Your task to perform on an android device: change keyboard looks Image 0: 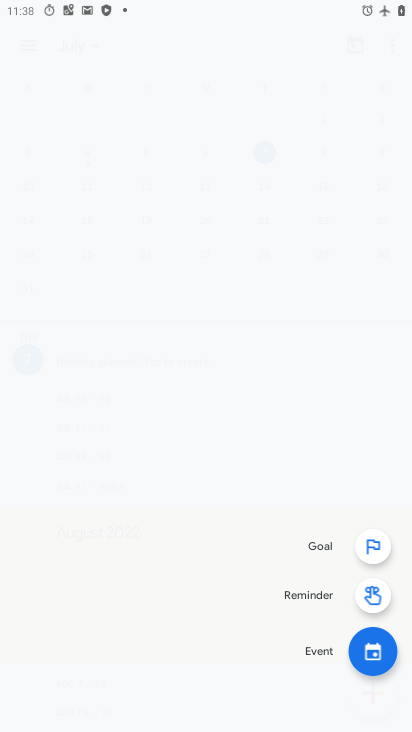
Step 0: press home button
Your task to perform on an android device: change keyboard looks Image 1: 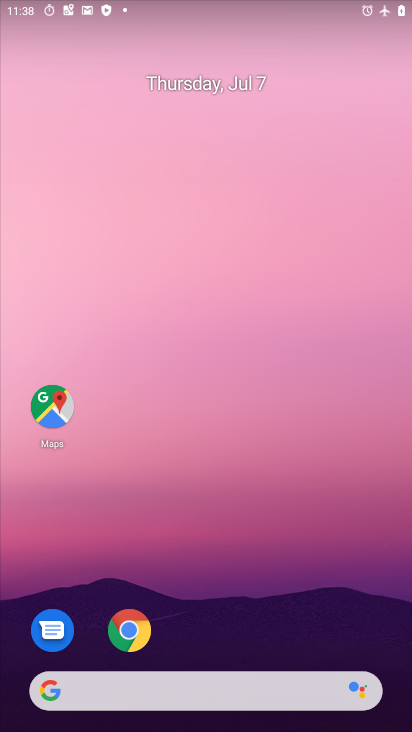
Step 1: drag from (202, 658) to (205, 185)
Your task to perform on an android device: change keyboard looks Image 2: 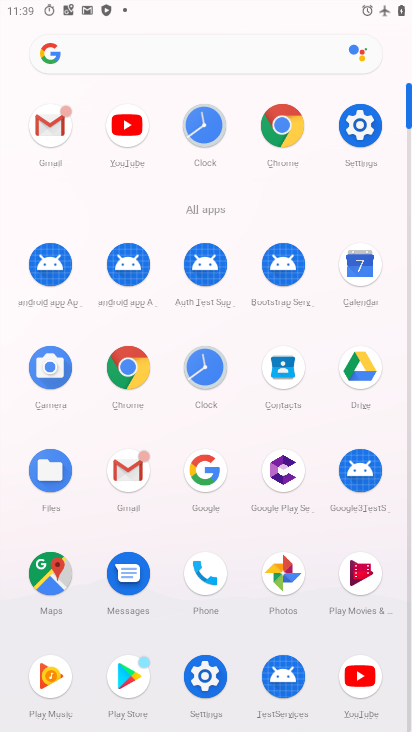
Step 2: click (345, 126)
Your task to perform on an android device: change keyboard looks Image 3: 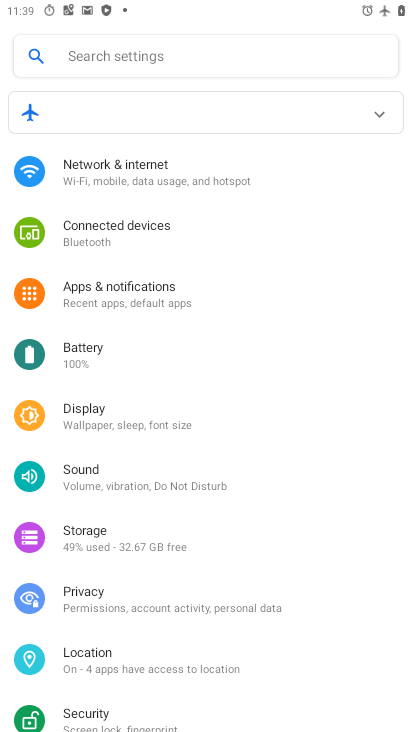
Step 3: drag from (156, 631) to (161, 170)
Your task to perform on an android device: change keyboard looks Image 4: 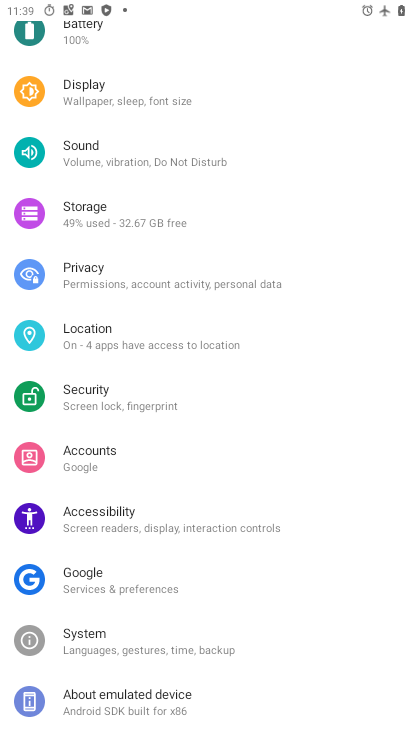
Step 4: click (135, 653)
Your task to perform on an android device: change keyboard looks Image 5: 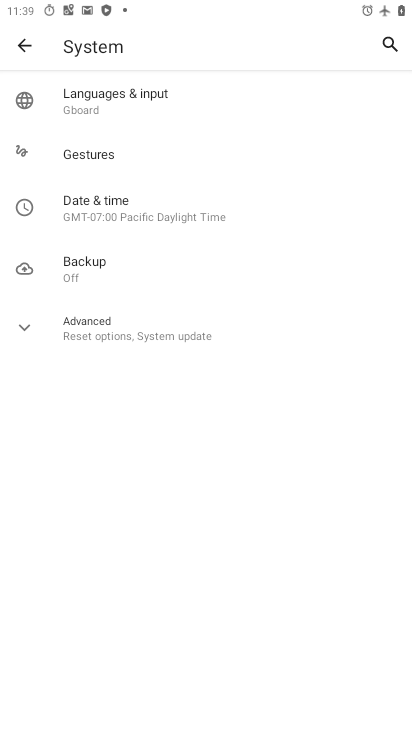
Step 5: click (145, 109)
Your task to perform on an android device: change keyboard looks Image 6: 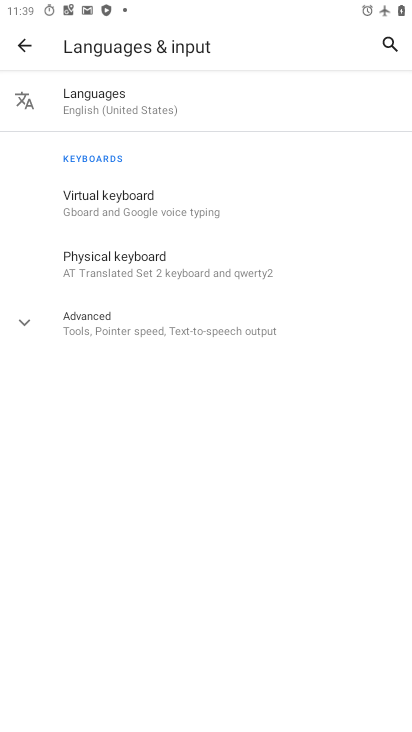
Step 6: click (124, 196)
Your task to perform on an android device: change keyboard looks Image 7: 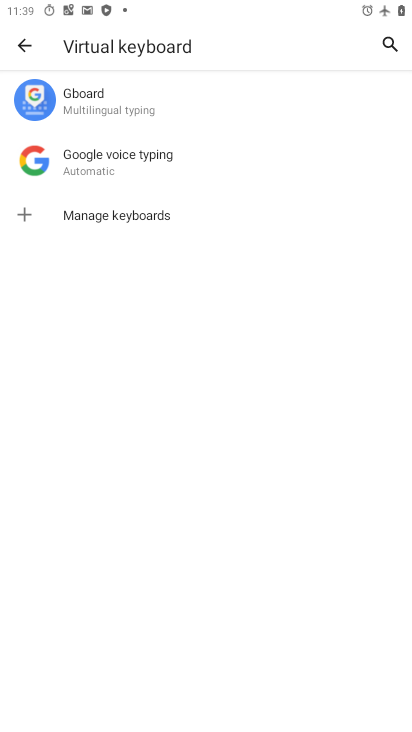
Step 7: click (118, 110)
Your task to perform on an android device: change keyboard looks Image 8: 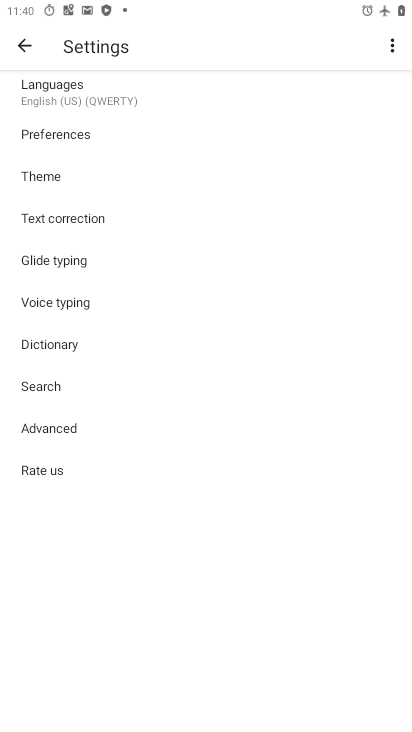
Step 8: click (70, 180)
Your task to perform on an android device: change keyboard looks Image 9: 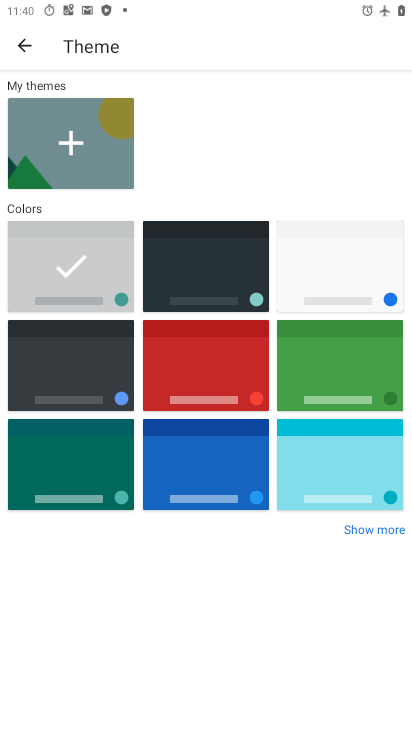
Step 9: click (187, 293)
Your task to perform on an android device: change keyboard looks Image 10: 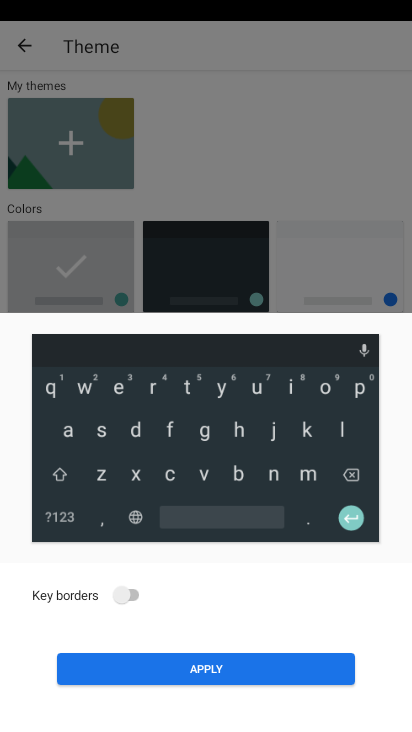
Step 10: click (164, 675)
Your task to perform on an android device: change keyboard looks Image 11: 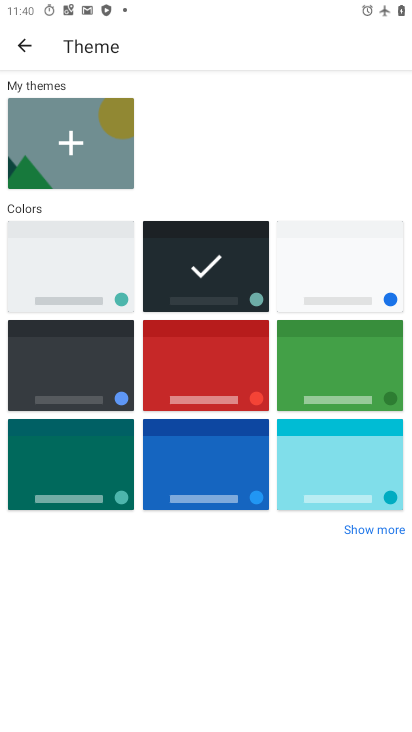
Step 11: task complete